Your task to perform on an android device: stop showing notifications on the lock screen Image 0: 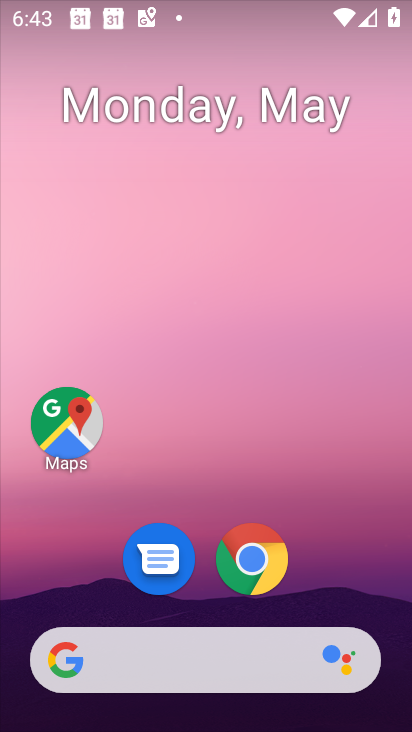
Step 0: drag from (389, 650) to (312, 50)
Your task to perform on an android device: stop showing notifications on the lock screen Image 1: 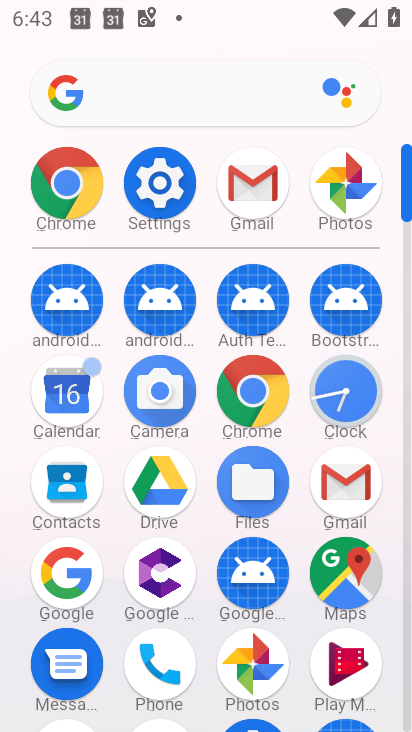
Step 1: click (165, 173)
Your task to perform on an android device: stop showing notifications on the lock screen Image 2: 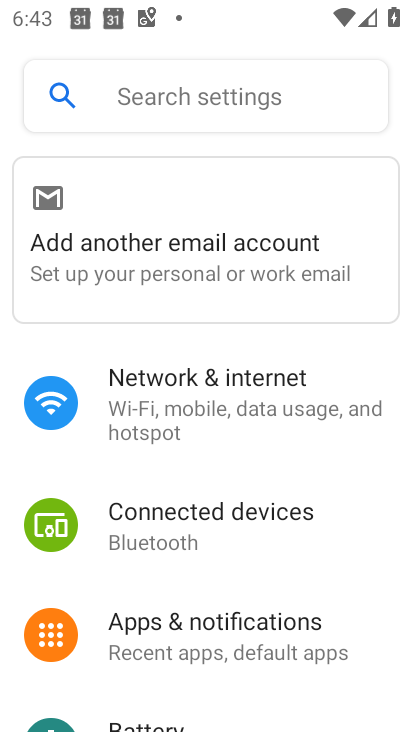
Step 2: click (262, 610)
Your task to perform on an android device: stop showing notifications on the lock screen Image 3: 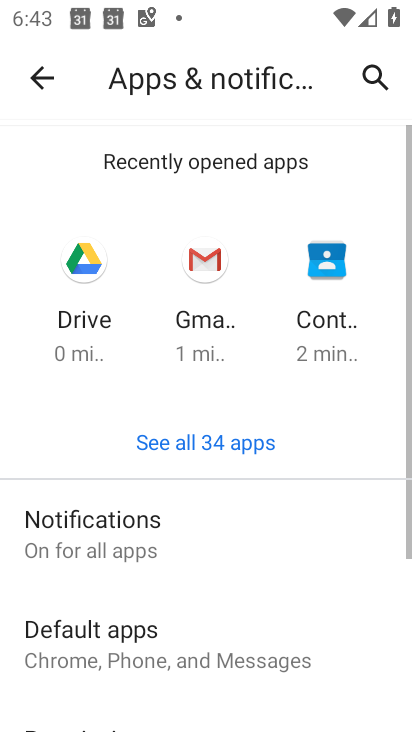
Step 3: click (177, 563)
Your task to perform on an android device: stop showing notifications on the lock screen Image 4: 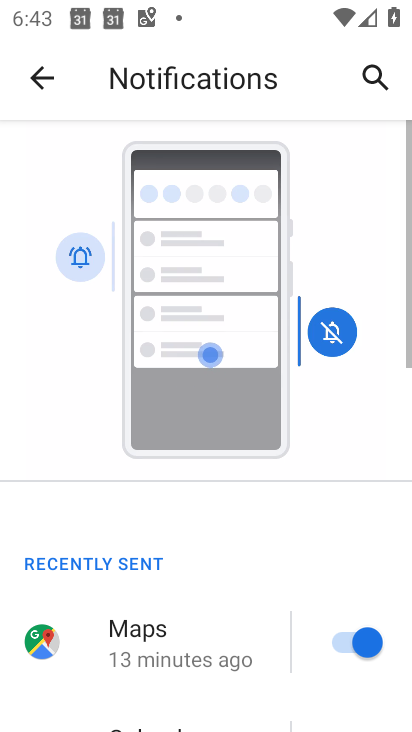
Step 4: drag from (142, 607) to (157, 3)
Your task to perform on an android device: stop showing notifications on the lock screen Image 5: 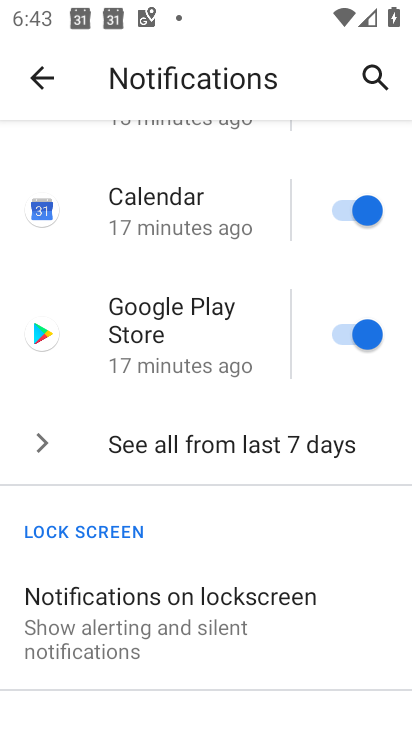
Step 5: click (190, 597)
Your task to perform on an android device: stop showing notifications on the lock screen Image 6: 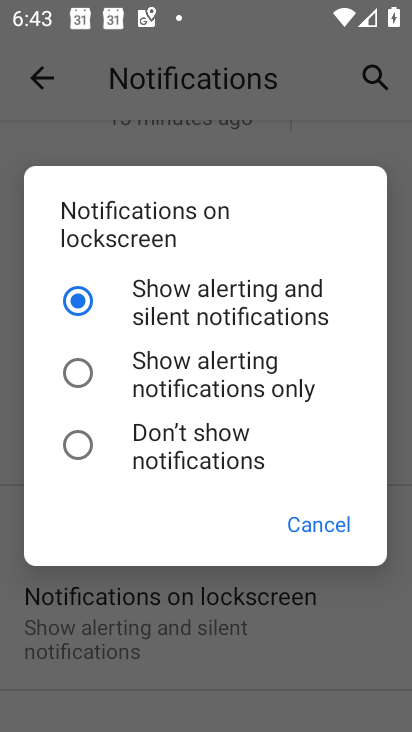
Step 6: click (184, 438)
Your task to perform on an android device: stop showing notifications on the lock screen Image 7: 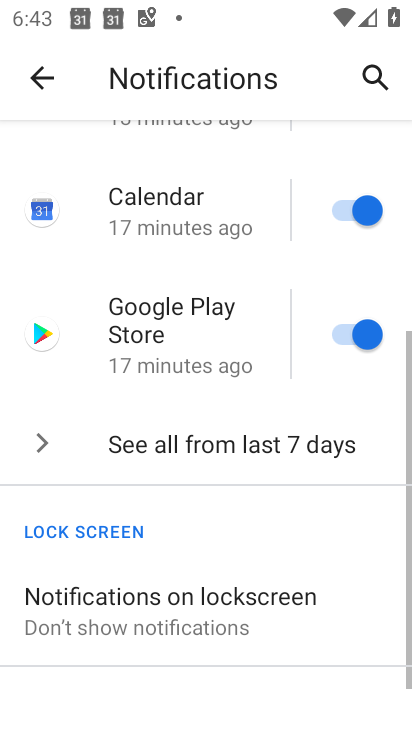
Step 7: task complete